Your task to perform on an android device: toggle improve location accuracy Image 0: 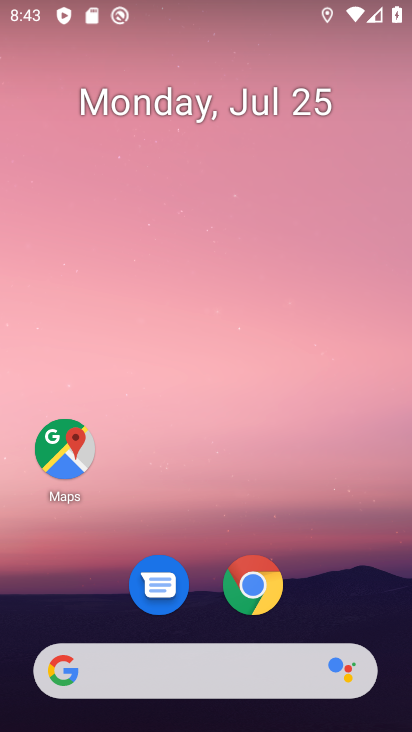
Step 0: press home button
Your task to perform on an android device: toggle improve location accuracy Image 1: 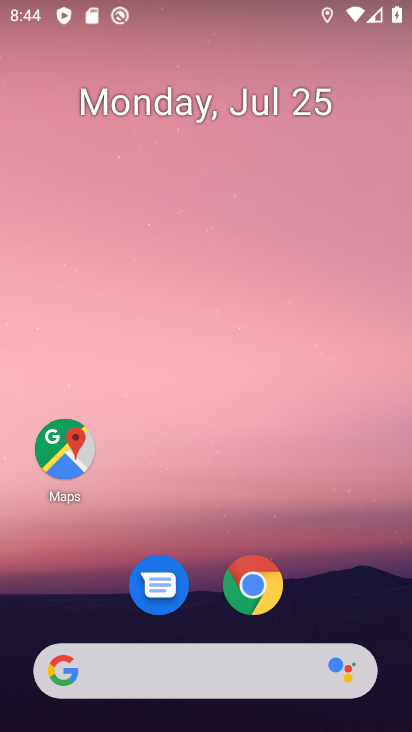
Step 1: drag from (220, 689) to (365, 105)
Your task to perform on an android device: toggle improve location accuracy Image 2: 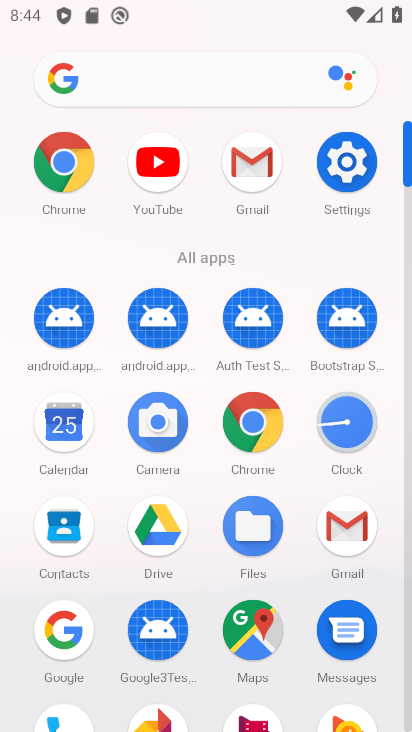
Step 2: click (350, 166)
Your task to perform on an android device: toggle improve location accuracy Image 3: 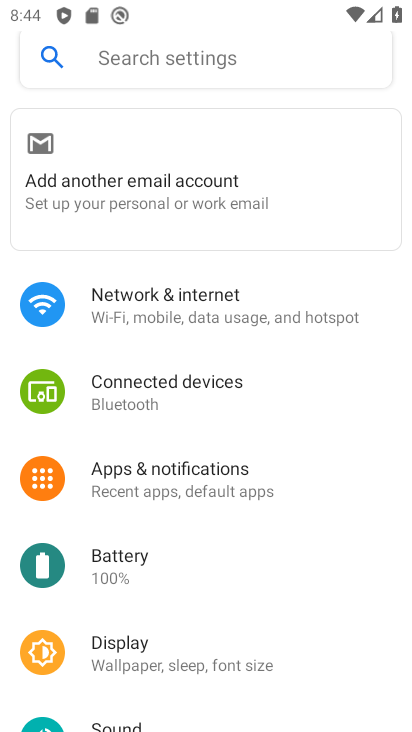
Step 3: drag from (184, 618) to (394, 173)
Your task to perform on an android device: toggle improve location accuracy Image 4: 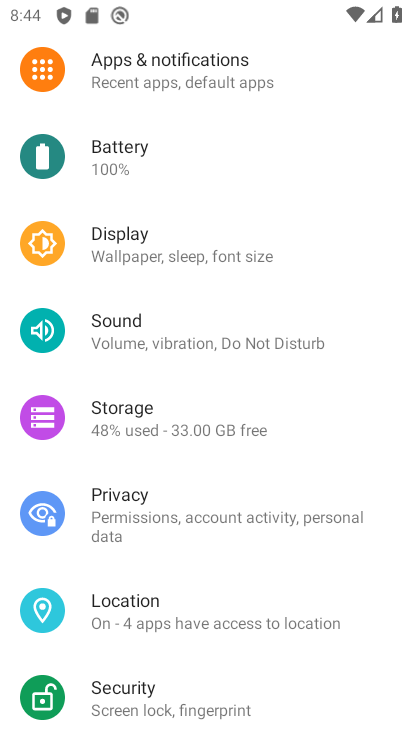
Step 4: click (137, 596)
Your task to perform on an android device: toggle improve location accuracy Image 5: 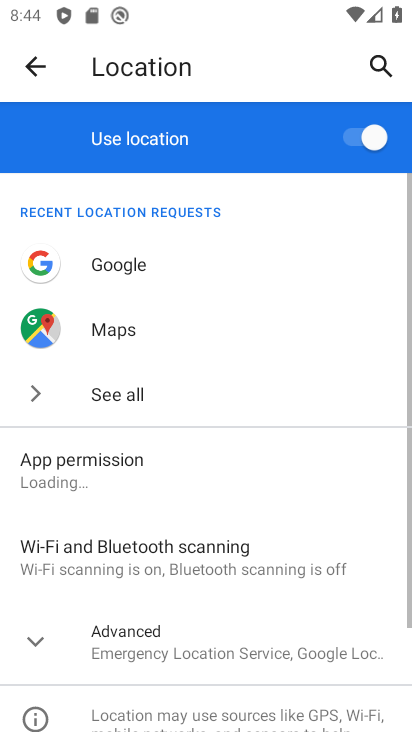
Step 5: drag from (211, 652) to (364, 217)
Your task to perform on an android device: toggle improve location accuracy Image 6: 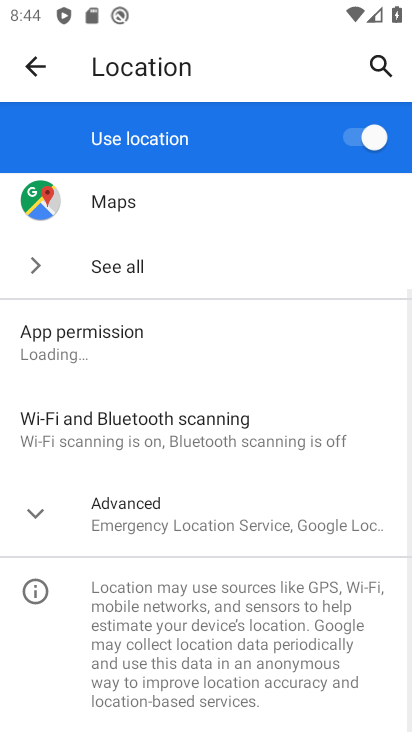
Step 6: click (141, 511)
Your task to perform on an android device: toggle improve location accuracy Image 7: 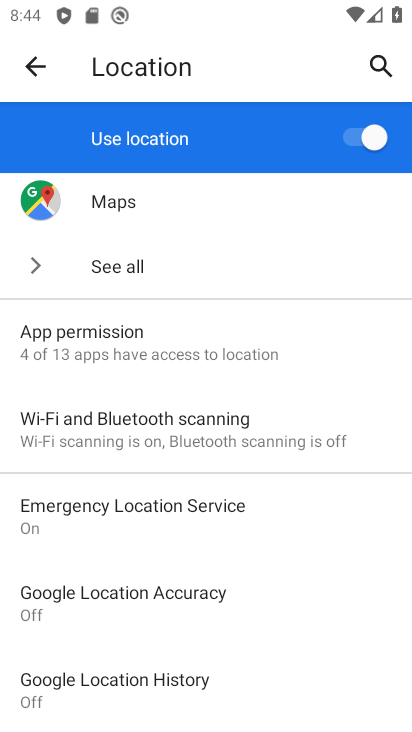
Step 7: click (193, 594)
Your task to perform on an android device: toggle improve location accuracy Image 8: 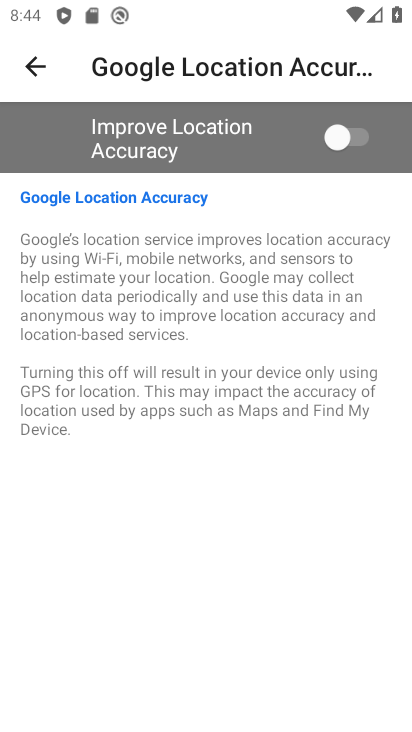
Step 8: click (362, 134)
Your task to perform on an android device: toggle improve location accuracy Image 9: 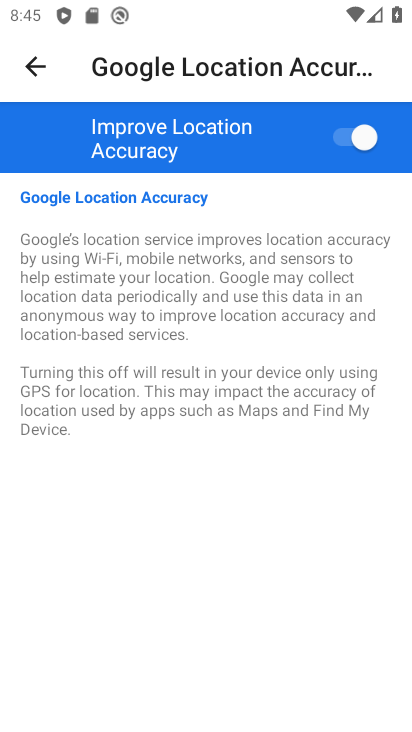
Step 9: task complete